Your task to perform on an android device: Open Yahoo.com Image 0: 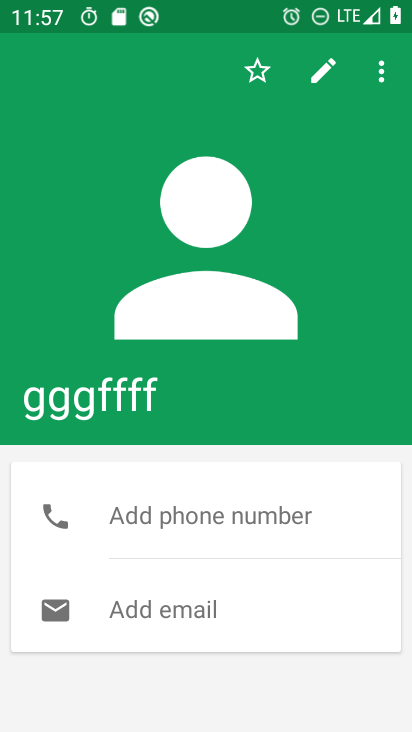
Step 0: press home button
Your task to perform on an android device: Open Yahoo.com Image 1: 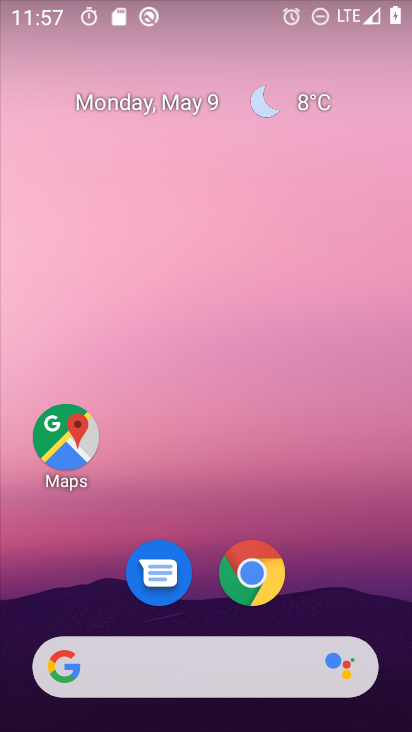
Step 1: click (246, 577)
Your task to perform on an android device: Open Yahoo.com Image 2: 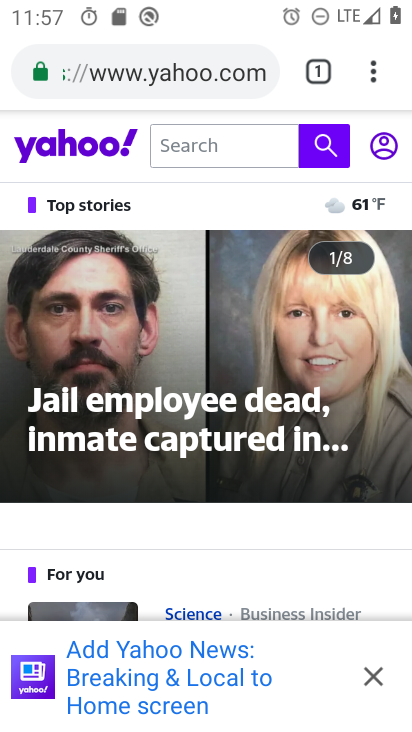
Step 2: task complete